Your task to perform on an android device: Search for Mexican restaurants on Maps Image 0: 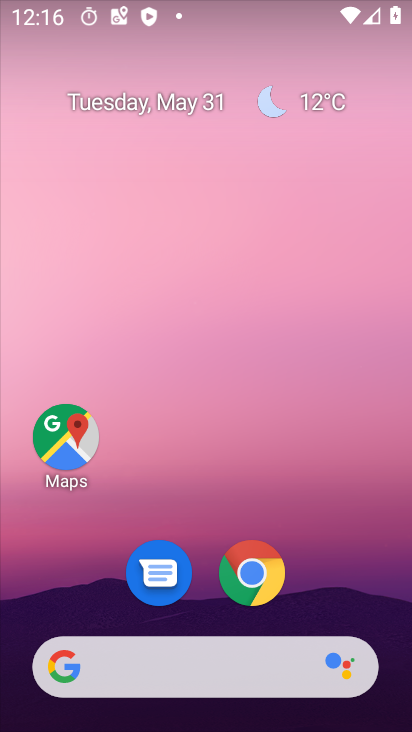
Step 0: drag from (376, 580) to (343, 108)
Your task to perform on an android device: Search for Mexican restaurants on Maps Image 1: 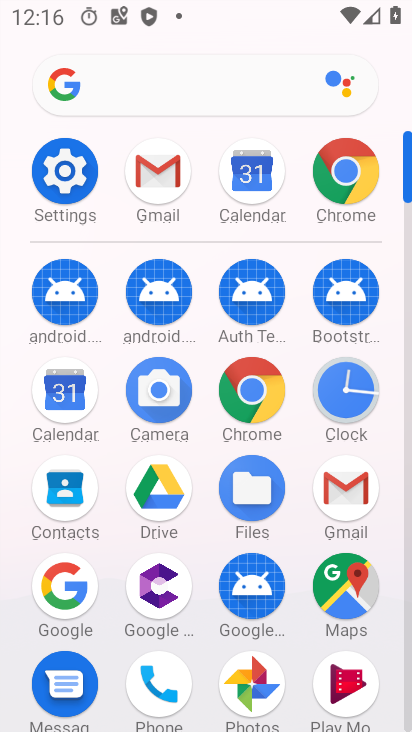
Step 1: click (348, 599)
Your task to perform on an android device: Search for Mexican restaurants on Maps Image 2: 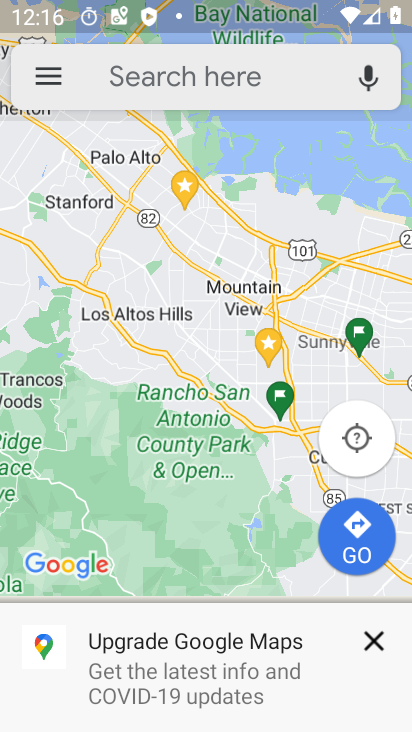
Step 2: click (122, 59)
Your task to perform on an android device: Search for Mexican restaurants on Maps Image 3: 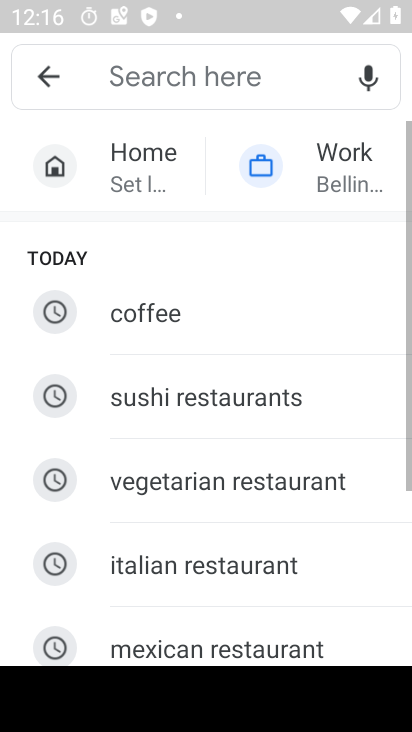
Step 3: drag from (282, 564) to (304, 242)
Your task to perform on an android device: Search for Mexican restaurants on Maps Image 4: 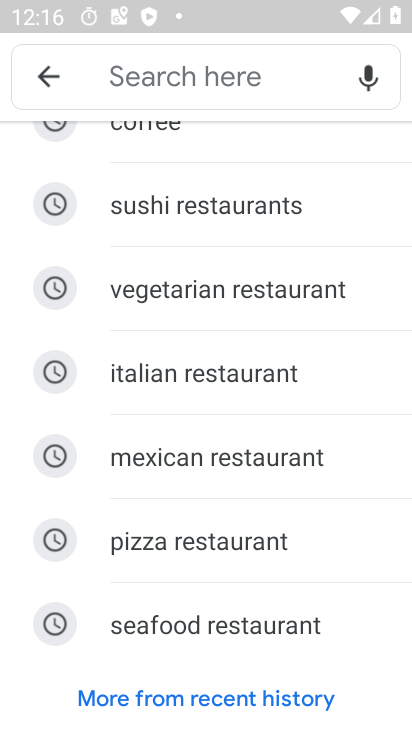
Step 4: click (235, 442)
Your task to perform on an android device: Search for Mexican restaurants on Maps Image 5: 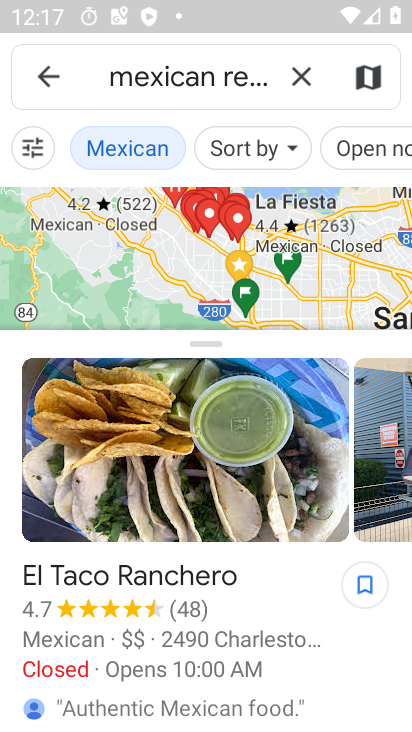
Step 5: task complete